Your task to perform on an android device: Open Google Chrome and click the shortcut for Amazon.com Image 0: 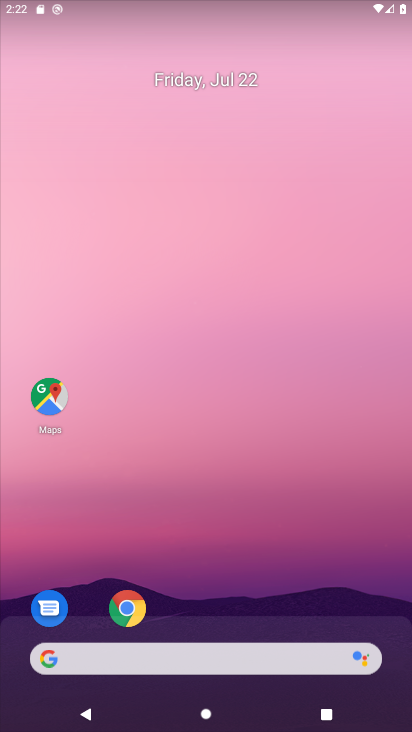
Step 0: drag from (306, 545) to (303, 12)
Your task to perform on an android device: Open Google Chrome and click the shortcut for Amazon.com Image 1: 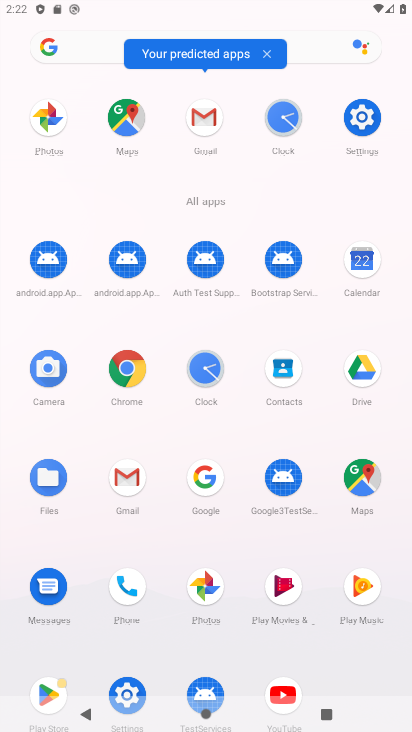
Step 1: click (365, 121)
Your task to perform on an android device: Open Google Chrome and click the shortcut for Amazon.com Image 2: 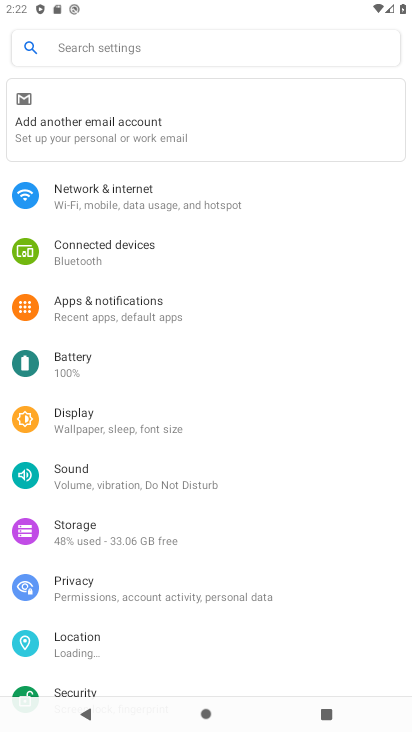
Step 2: click (111, 331)
Your task to perform on an android device: Open Google Chrome and click the shortcut for Amazon.com Image 3: 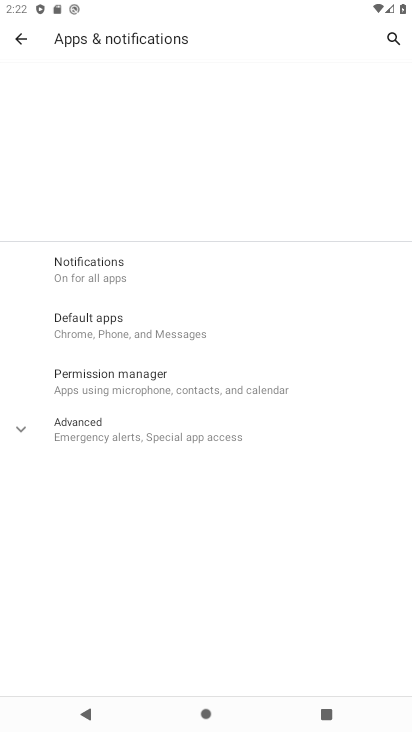
Step 3: press back button
Your task to perform on an android device: Open Google Chrome and click the shortcut for Amazon.com Image 4: 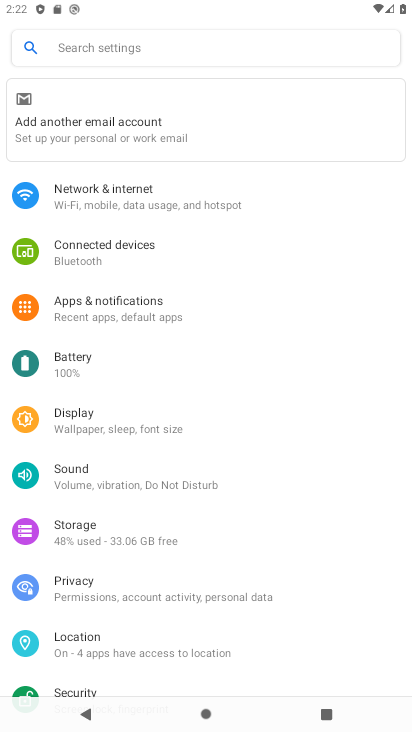
Step 4: click (80, 422)
Your task to perform on an android device: Open Google Chrome and click the shortcut for Amazon.com Image 5: 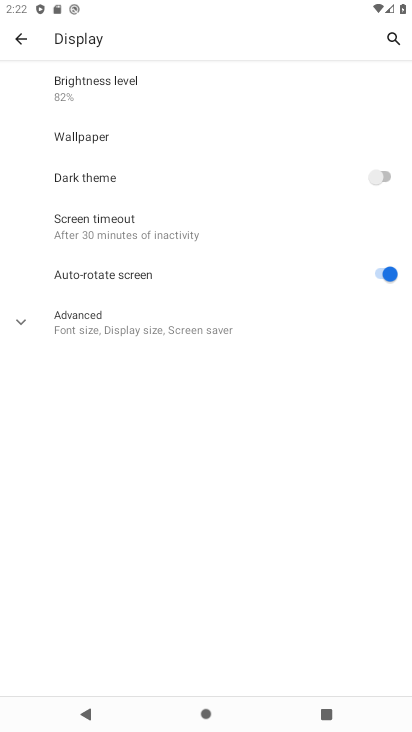
Step 5: click (138, 329)
Your task to perform on an android device: Open Google Chrome and click the shortcut for Amazon.com Image 6: 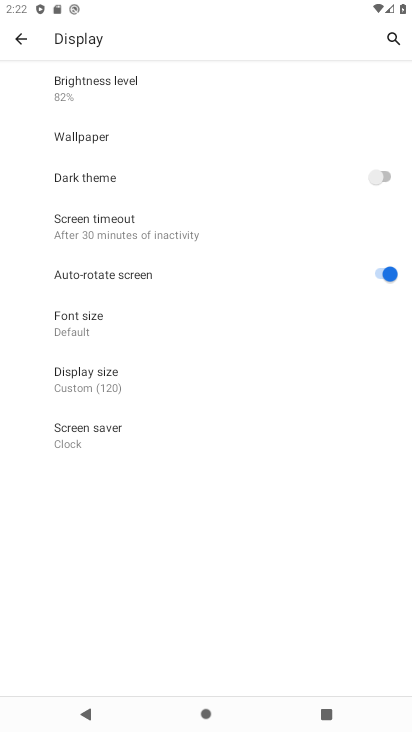
Step 6: click (107, 379)
Your task to perform on an android device: Open Google Chrome and click the shortcut for Amazon.com Image 7: 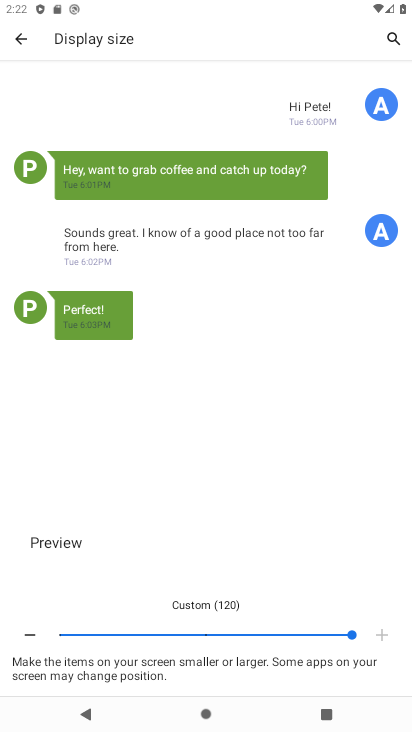
Step 7: click (208, 630)
Your task to perform on an android device: Open Google Chrome and click the shortcut for Amazon.com Image 8: 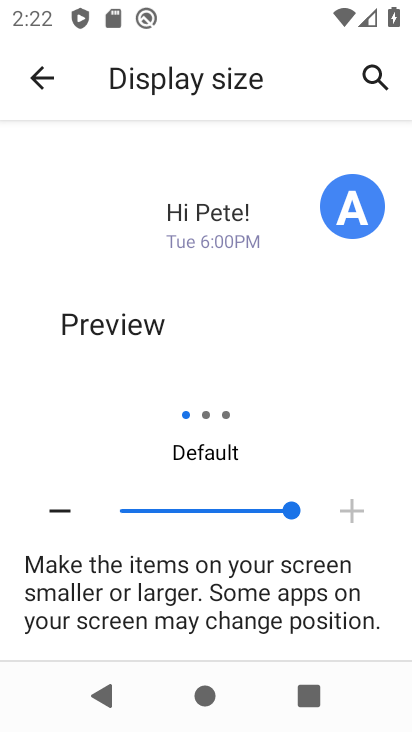
Step 8: click (44, 68)
Your task to perform on an android device: Open Google Chrome and click the shortcut for Amazon.com Image 9: 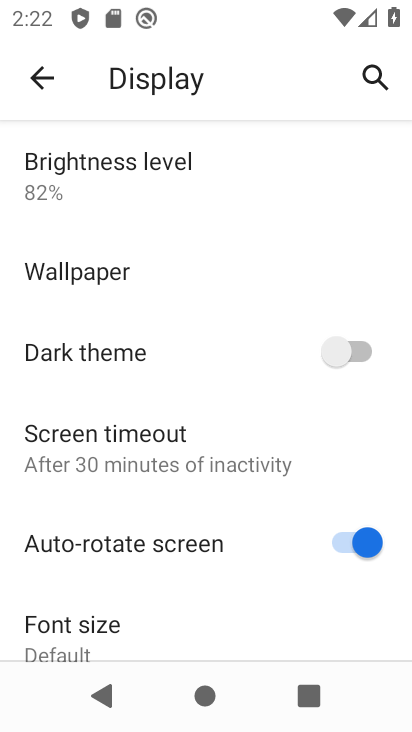
Step 9: press back button
Your task to perform on an android device: Open Google Chrome and click the shortcut for Amazon.com Image 10: 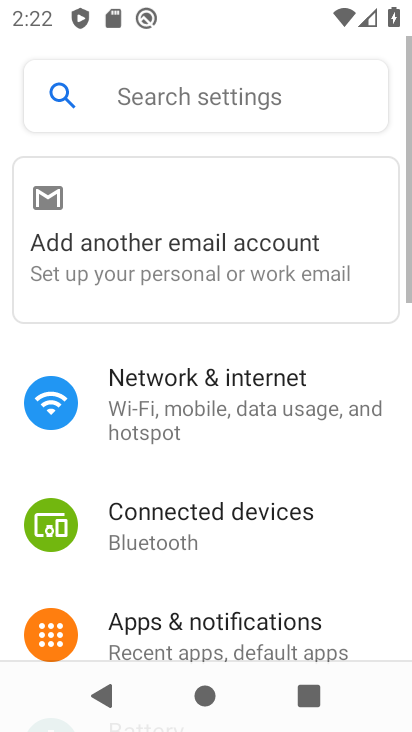
Step 10: press back button
Your task to perform on an android device: Open Google Chrome and click the shortcut for Amazon.com Image 11: 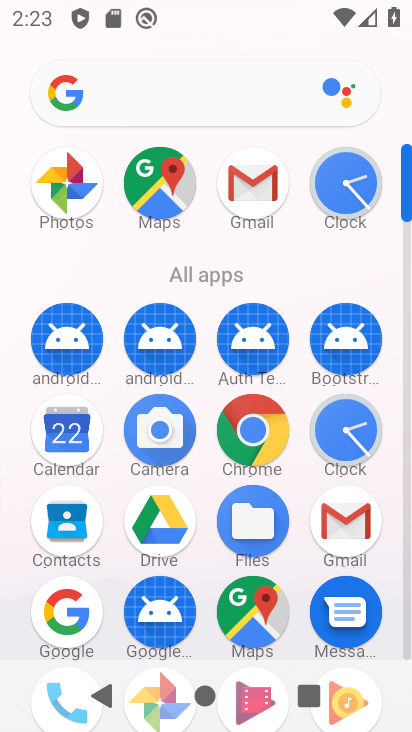
Step 11: press back button
Your task to perform on an android device: Open Google Chrome and click the shortcut for Amazon.com Image 12: 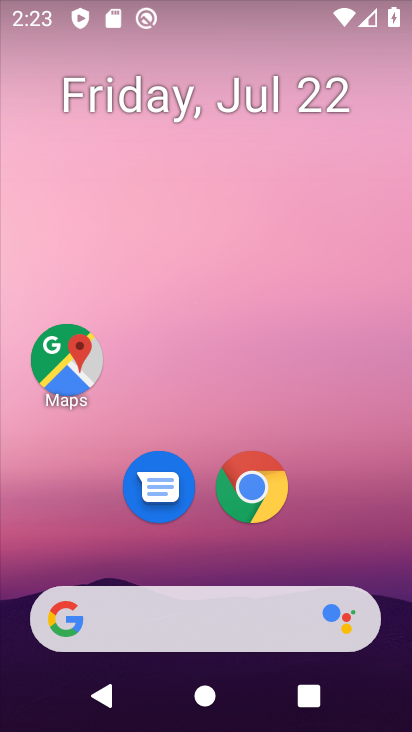
Step 12: click (239, 487)
Your task to perform on an android device: Open Google Chrome and click the shortcut for Amazon.com Image 13: 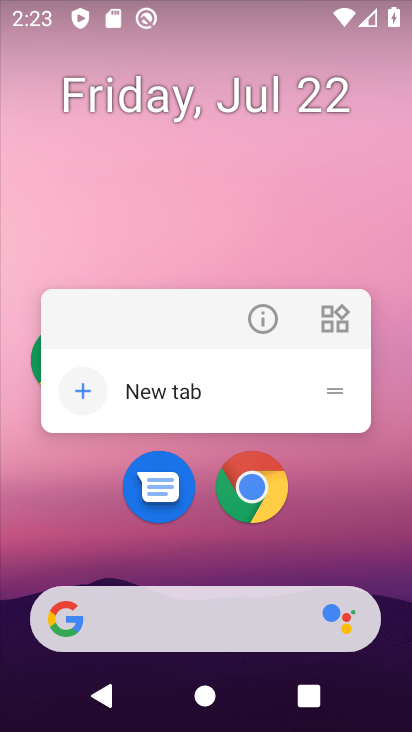
Step 13: click (253, 487)
Your task to perform on an android device: Open Google Chrome and click the shortcut for Amazon.com Image 14: 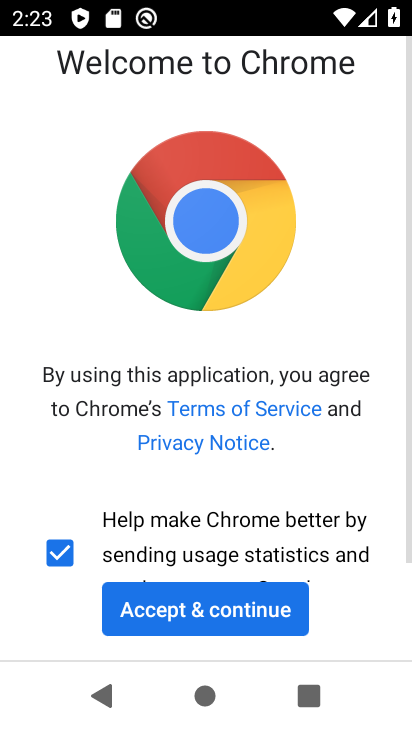
Step 14: click (228, 609)
Your task to perform on an android device: Open Google Chrome and click the shortcut for Amazon.com Image 15: 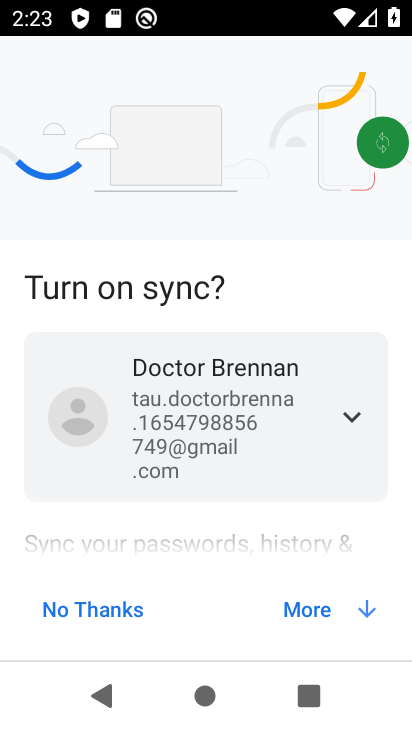
Step 15: click (313, 614)
Your task to perform on an android device: Open Google Chrome and click the shortcut for Amazon.com Image 16: 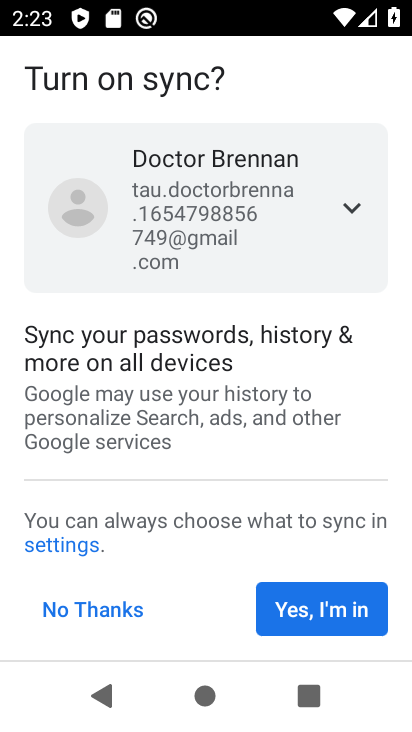
Step 16: click (313, 614)
Your task to perform on an android device: Open Google Chrome and click the shortcut for Amazon.com Image 17: 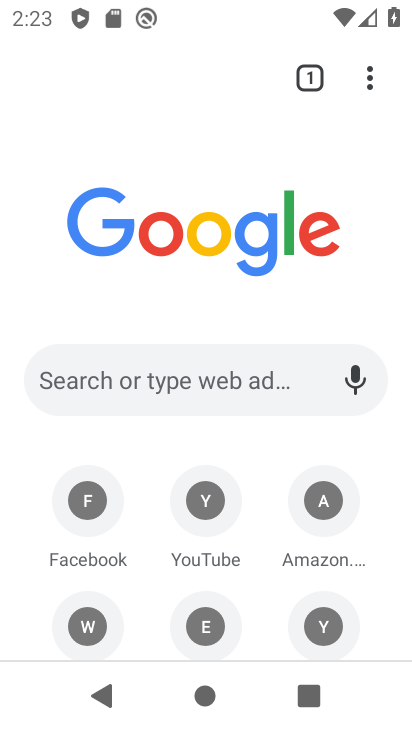
Step 17: click (311, 76)
Your task to perform on an android device: Open Google Chrome and click the shortcut for Amazon.com Image 18: 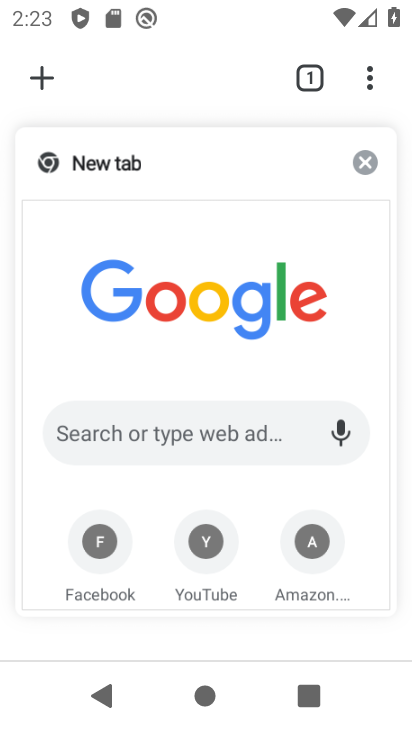
Step 18: click (307, 543)
Your task to perform on an android device: Open Google Chrome and click the shortcut for Amazon.com Image 19: 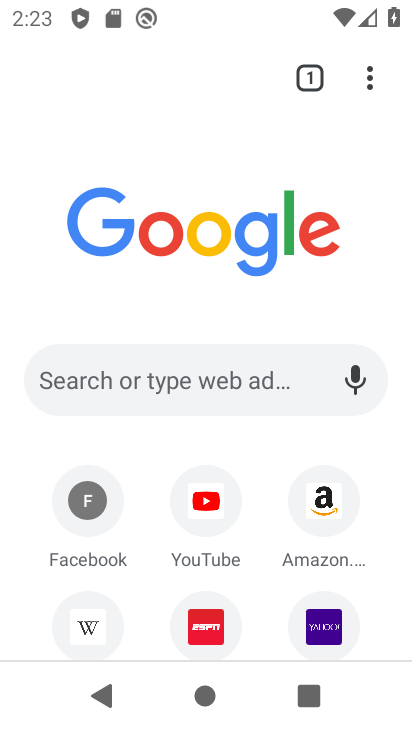
Step 19: click (308, 502)
Your task to perform on an android device: Open Google Chrome and click the shortcut for Amazon.com Image 20: 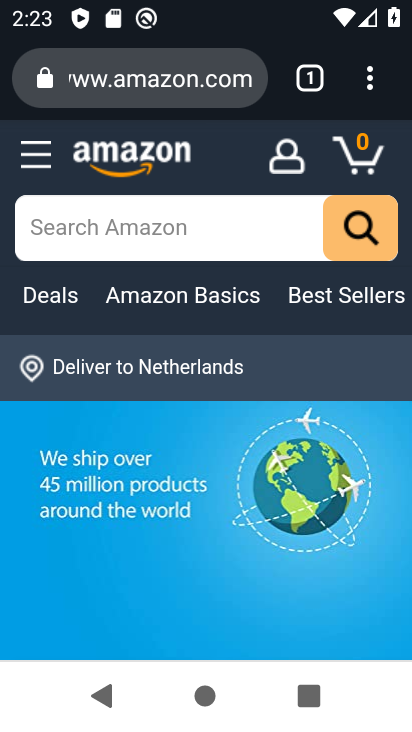
Step 20: task complete